Your task to perform on an android device: turn off location history Image 0: 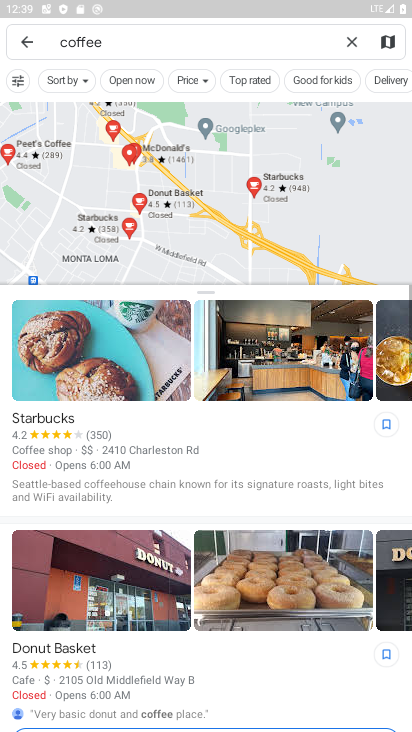
Step 0: press home button
Your task to perform on an android device: turn off location history Image 1: 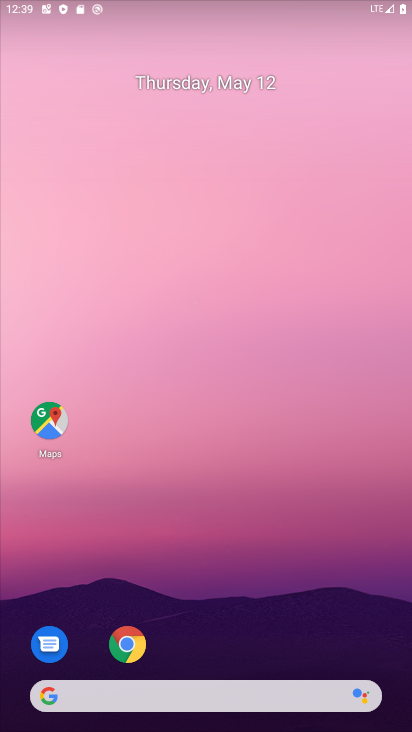
Step 1: drag from (285, 463) to (166, 10)
Your task to perform on an android device: turn off location history Image 2: 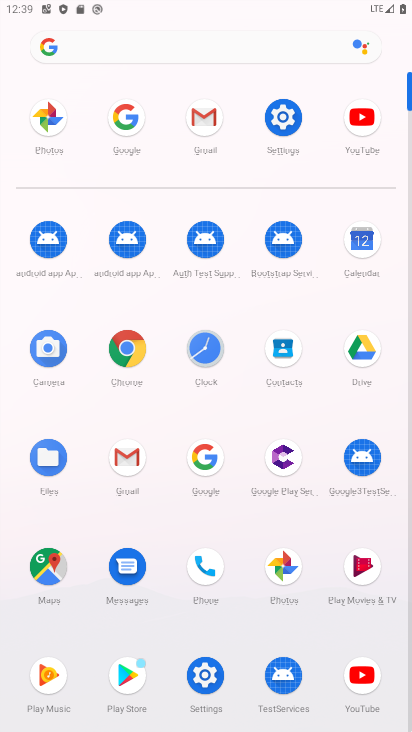
Step 2: click (293, 114)
Your task to perform on an android device: turn off location history Image 3: 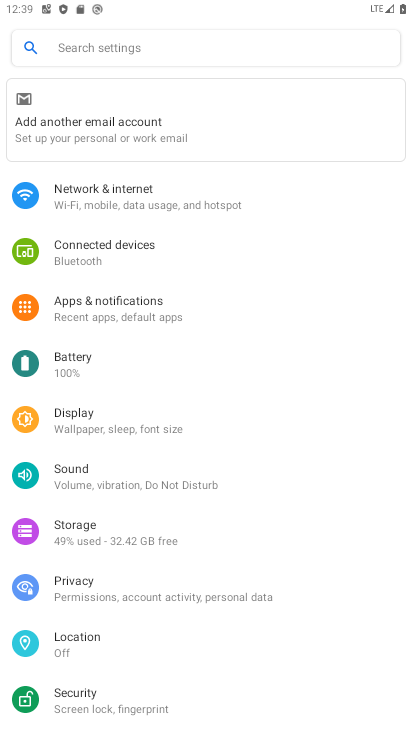
Step 3: click (132, 654)
Your task to perform on an android device: turn off location history Image 4: 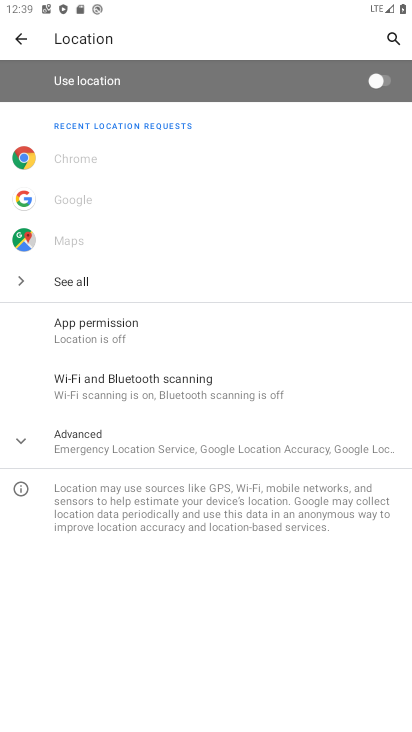
Step 4: click (167, 434)
Your task to perform on an android device: turn off location history Image 5: 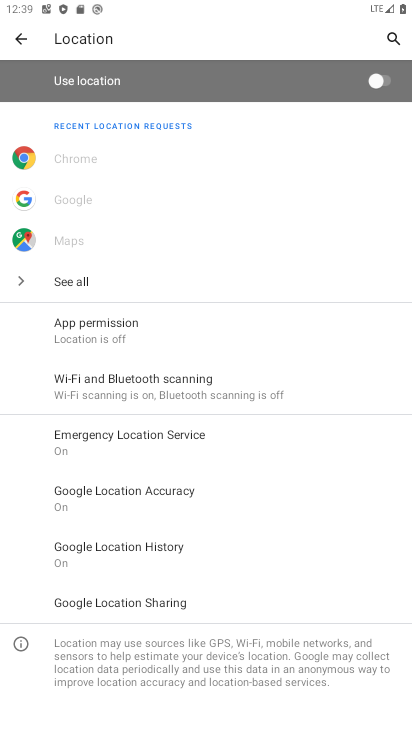
Step 5: click (173, 534)
Your task to perform on an android device: turn off location history Image 6: 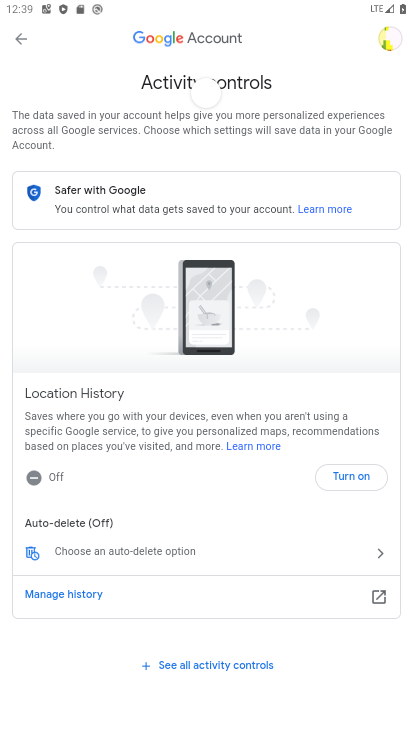
Step 6: task complete